Your task to perform on an android device: Go to Reddit.com Image 0: 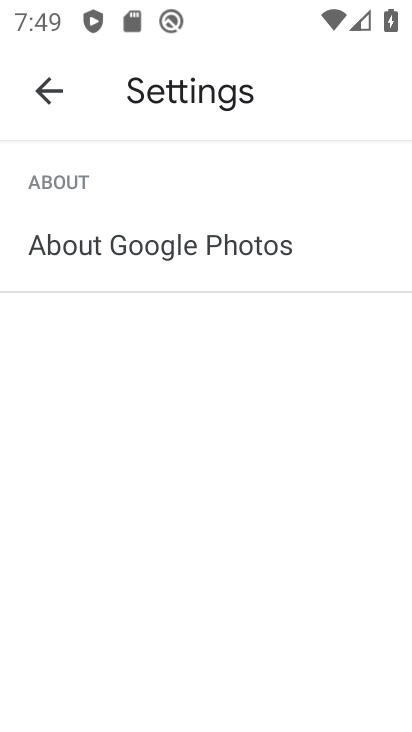
Step 0: press home button
Your task to perform on an android device: Go to Reddit.com Image 1: 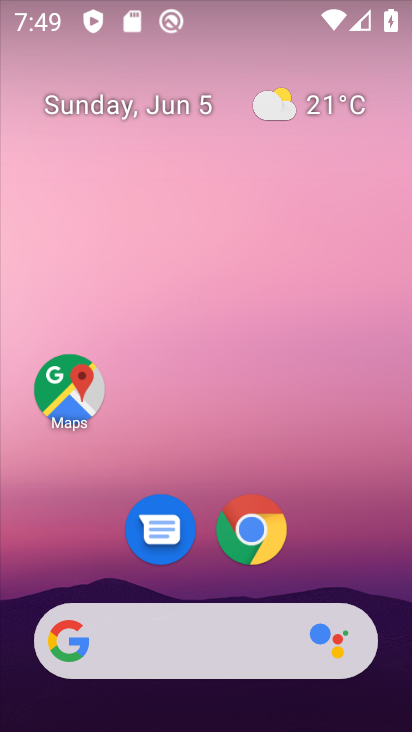
Step 1: click (227, 633)
Your task to perform on an android device: Go to Reddit.com Image 2: 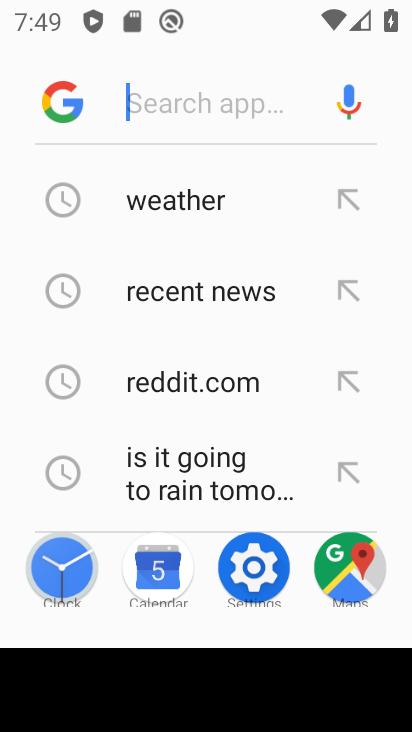
Step 2: type "redd"
Your task to perform on an android device: Go to Reddit.com Image 3: 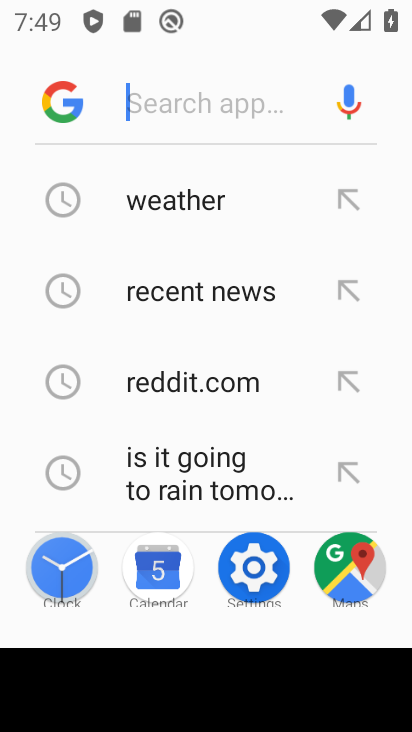
Step 3: click (225, 371)
Your task to perform on an android device: Go to Reddit.com Image 4: 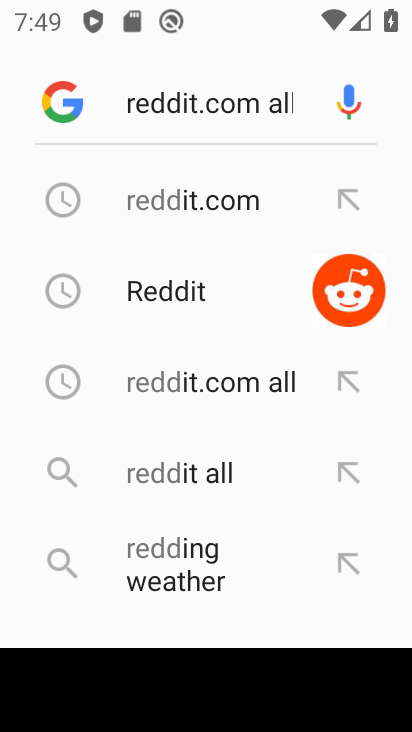
Step 4: click (231, 189)
Your task to perform on an android device: Go to Reddit.com Image 5: 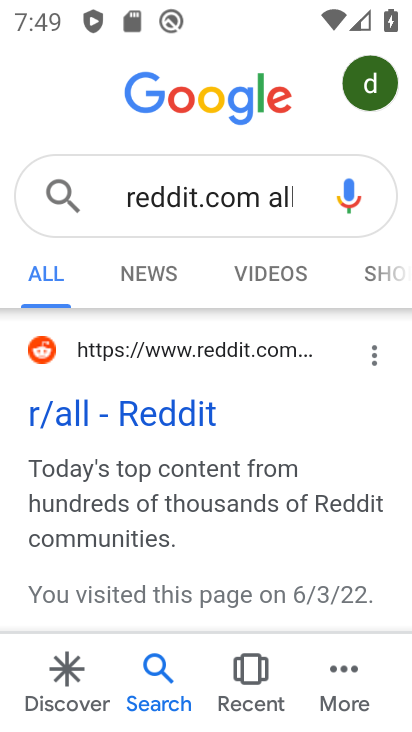
Step 5: click (149, 370)
Your task to perform on an android device: Go to Reddit.com Image 6: 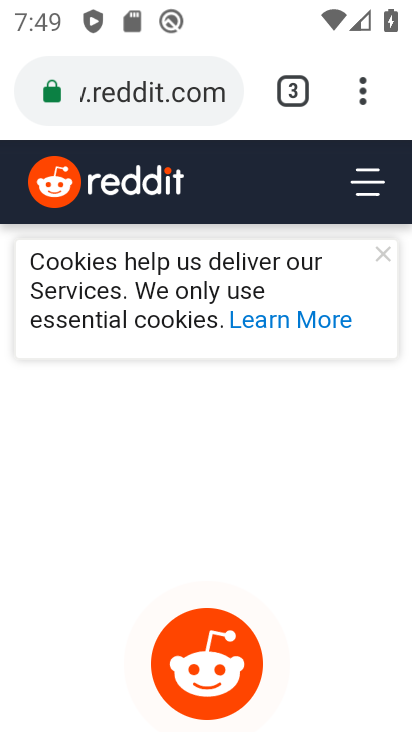
Step 6: task complete